Your task to perform on an android device: Go to Google maps Image 0: 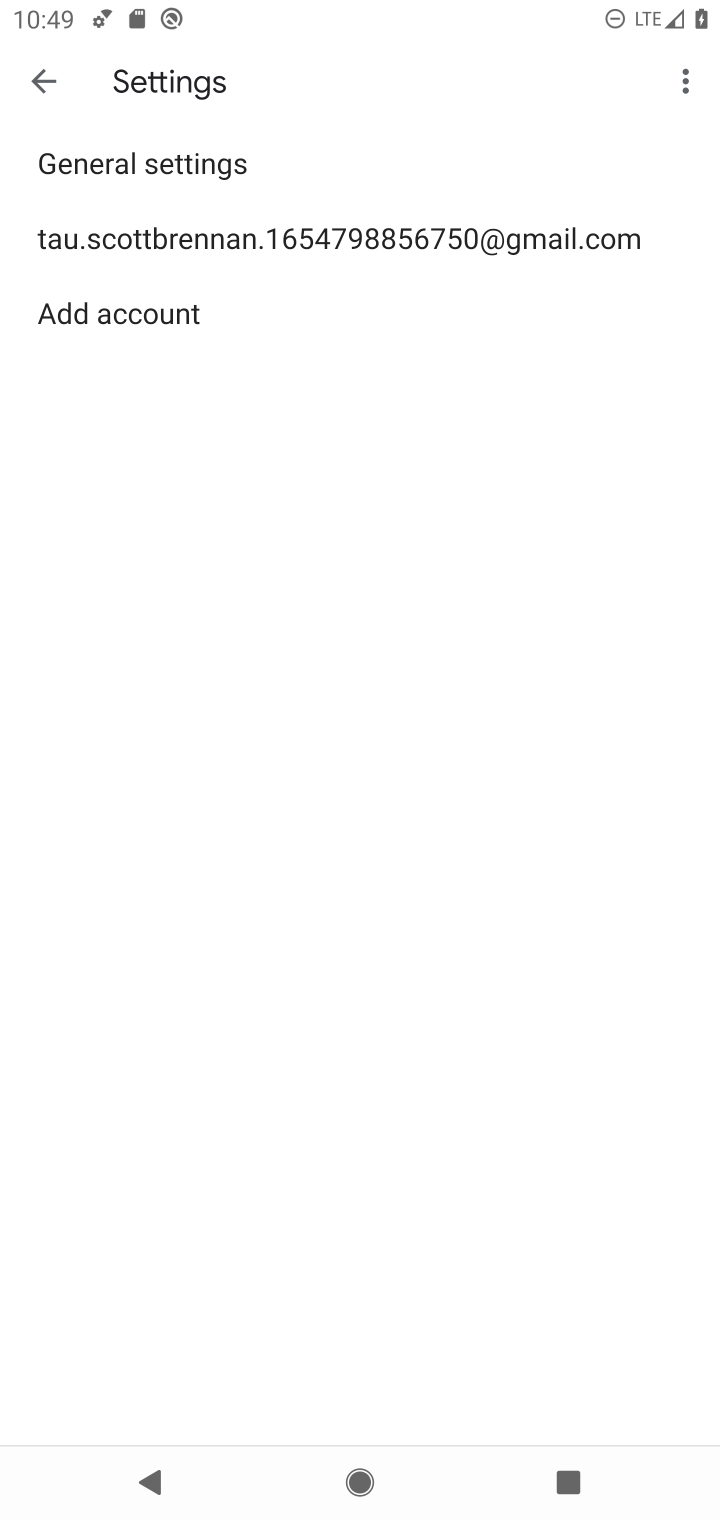
Step 0: press home button
Your task to perform on an android device: Go to Google maps Image 1: 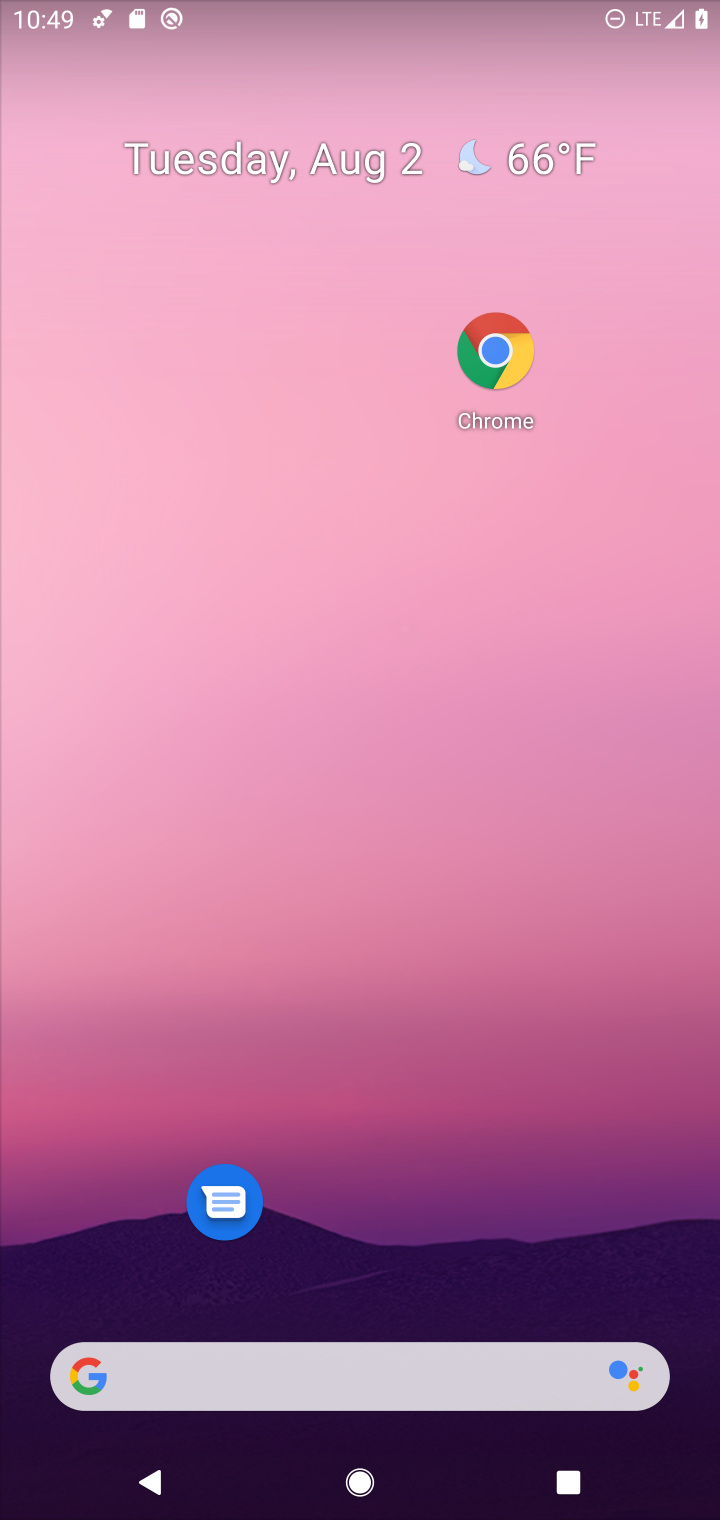
Step 1: drag from (480, 1103) to (604, 6)
Your task to perform on an android device: Go to Google maps Image 2: 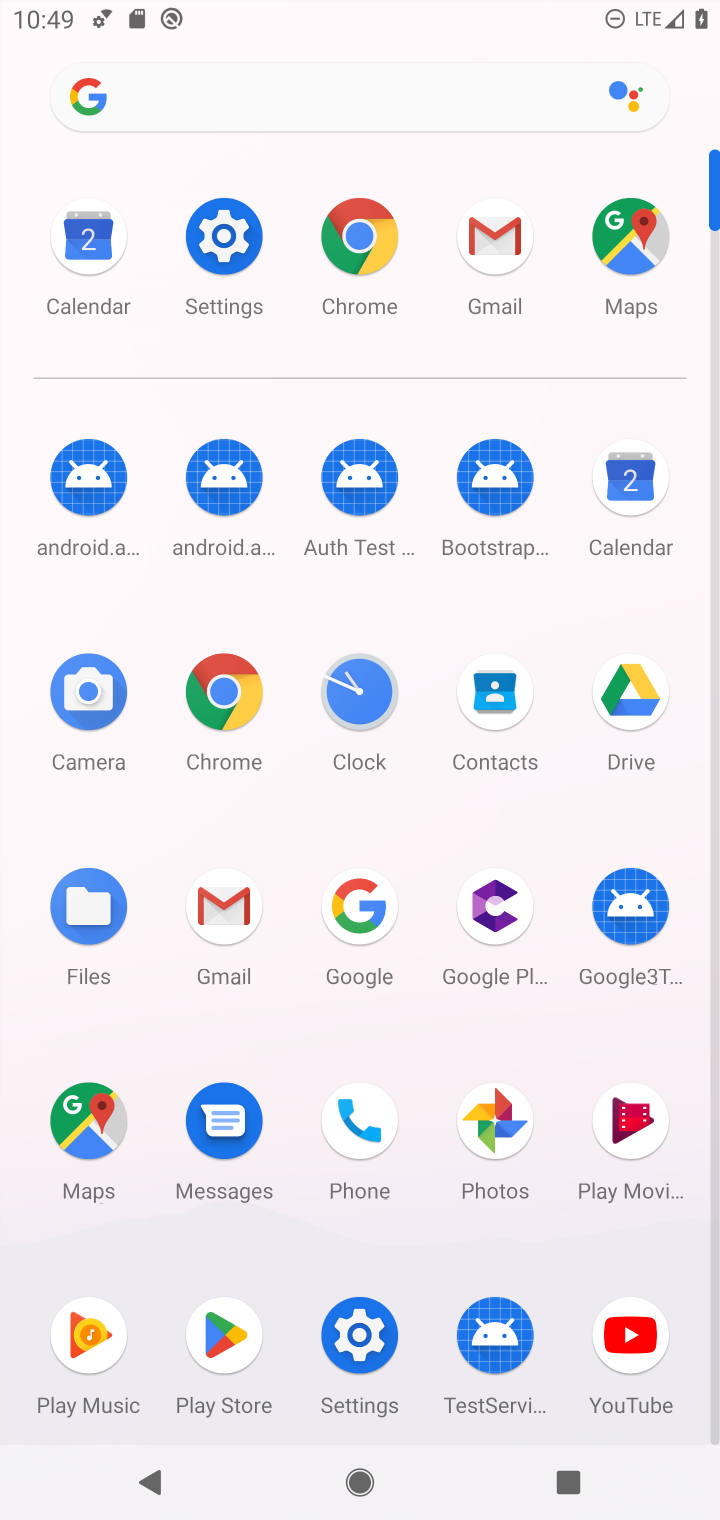
Step 2: click (622, 244)
Your task to perform on an android device: Go to Google maps Image 3: 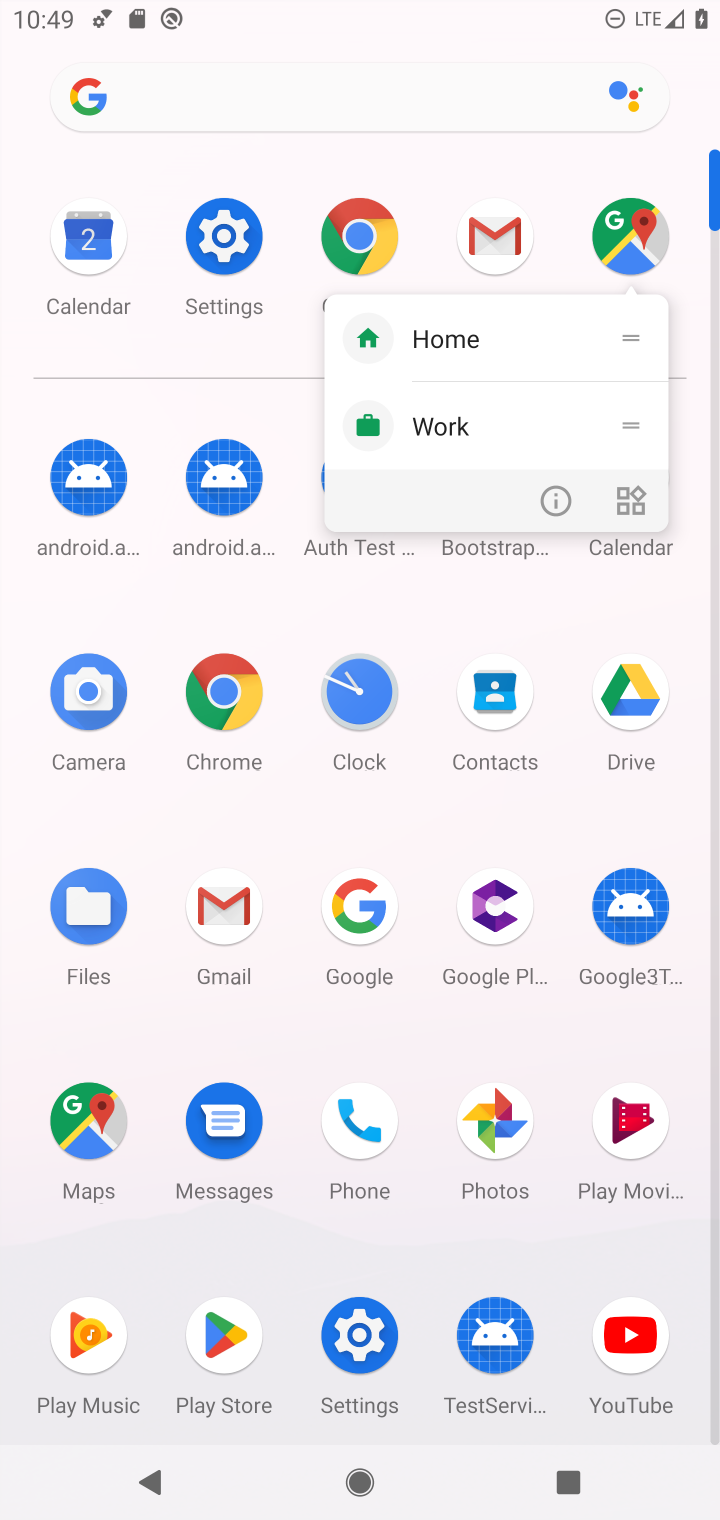
Step 3: click (621, 245)
Your task to perform on an android device: Go to Google maps Image 4: 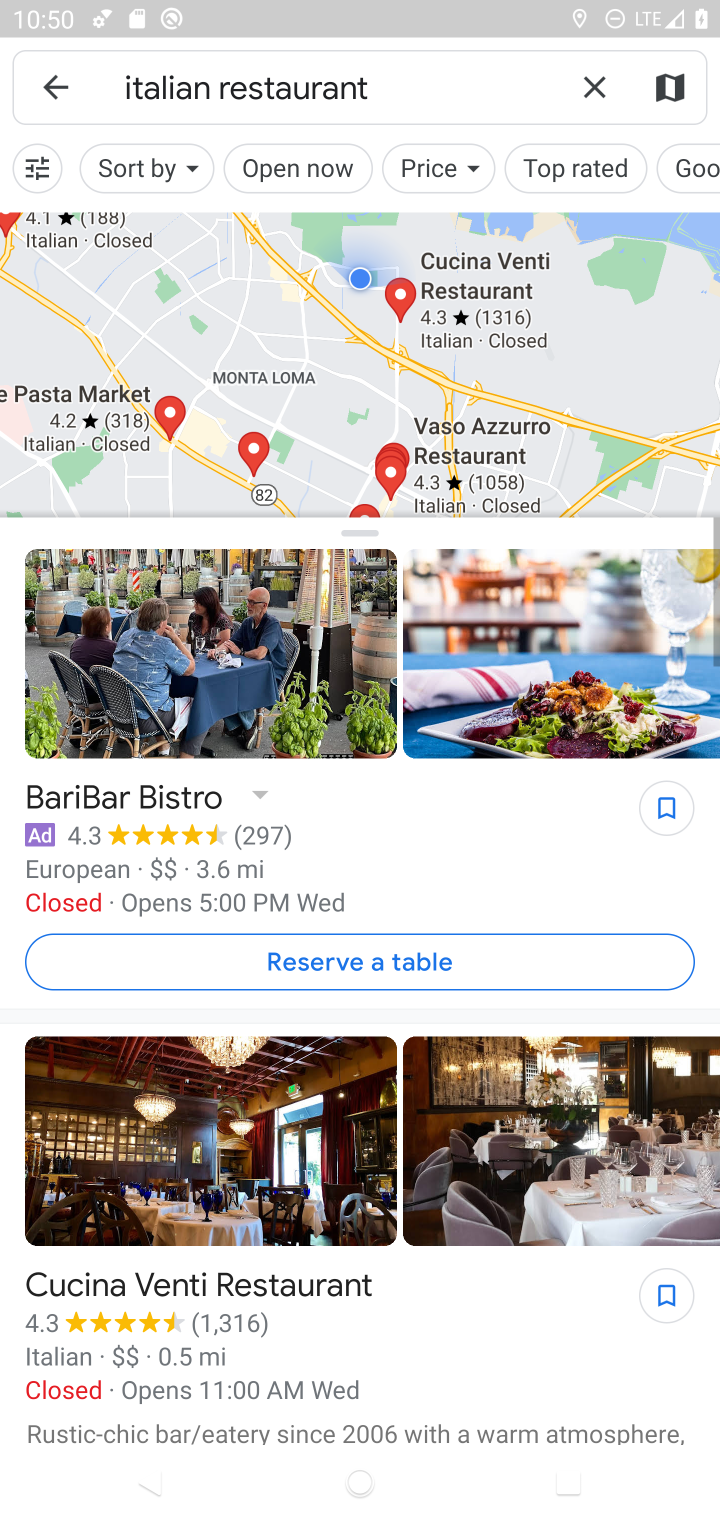
Step 4: task complete